Your task to perform on an android device: clear history in the chrome app Image 0: 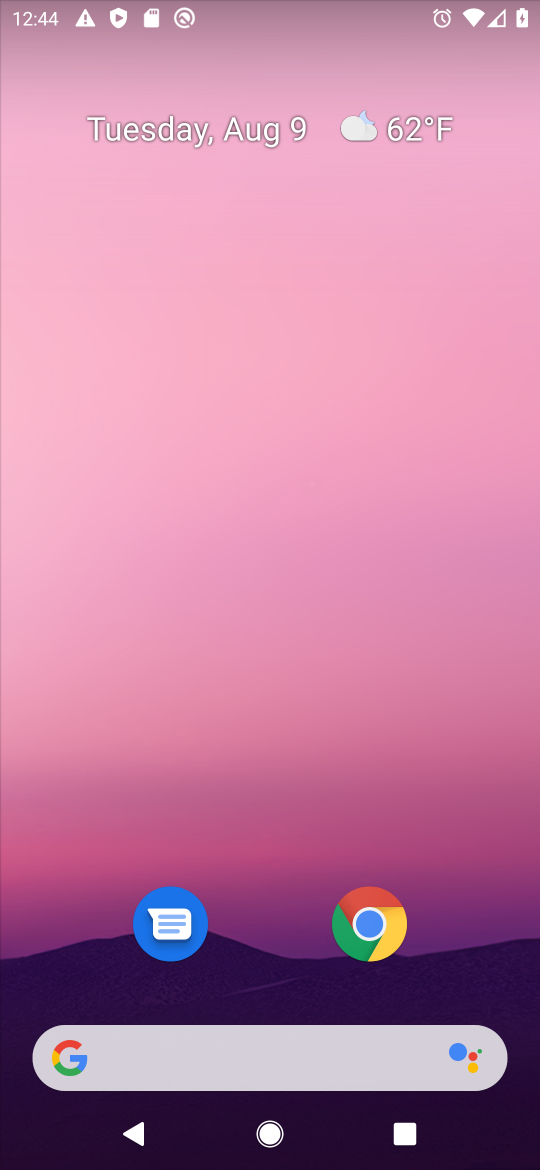
Step 0: click (366, 927)
Your task to perform on an android device: clear history in the chrome app Image 1: 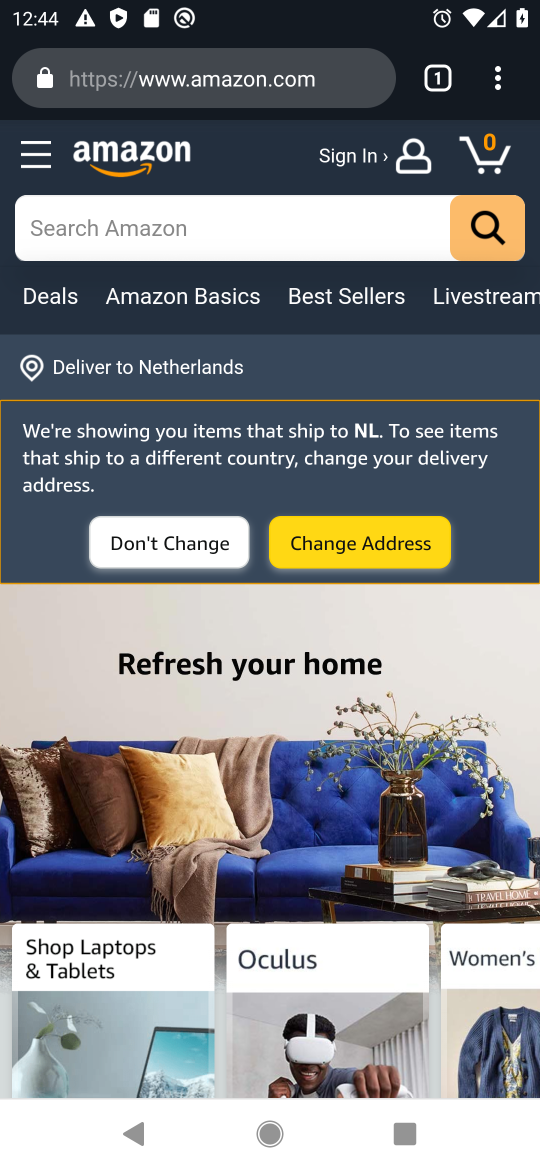
Step 1: click (498, 70)
Your task to perform on an android device: clear history in the chrome app Image 2: 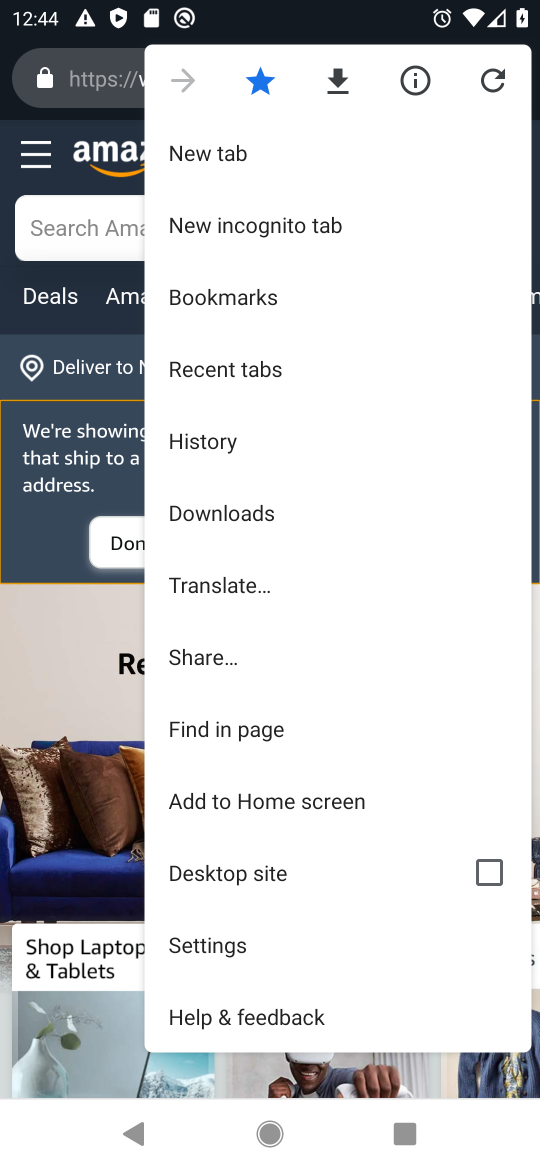
Step 2: click (218, 451)
Your task to perform on an android device: clear history in the chrome app Image 3: 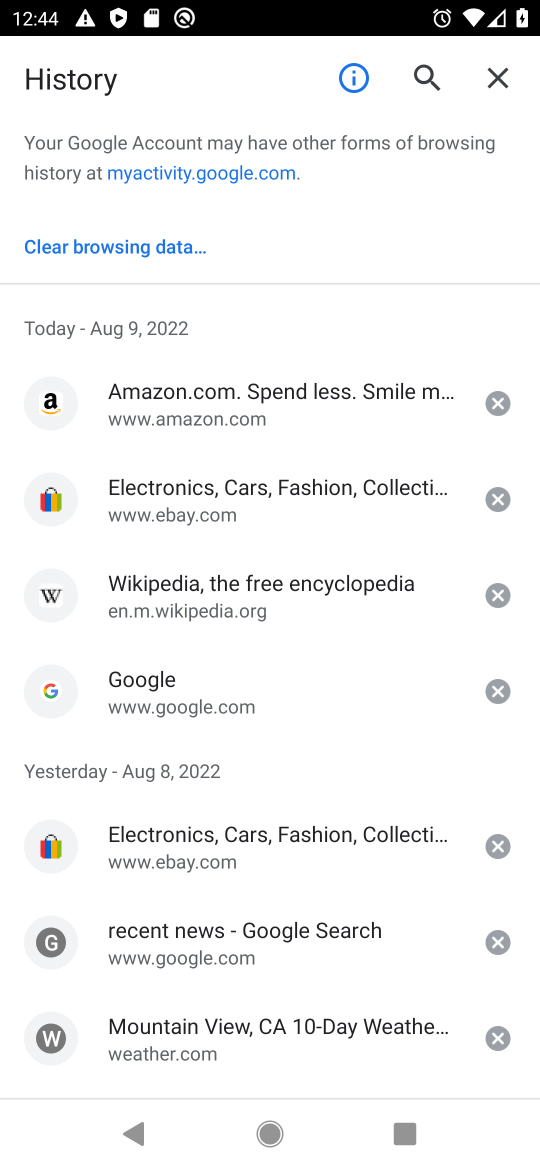
Step 3: click (112, 261)
Your task to perform on an android device: clear history in the chrome app Image 4: 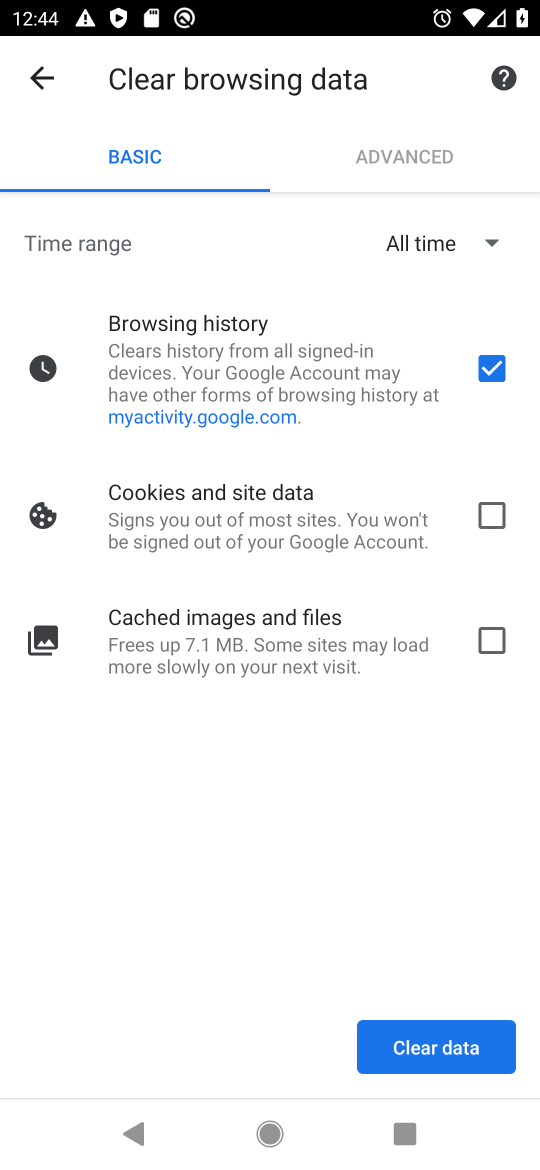
Step 4: click (438, 1052)
Your task to perform on an android device: clear history in the chrome app Image 5: 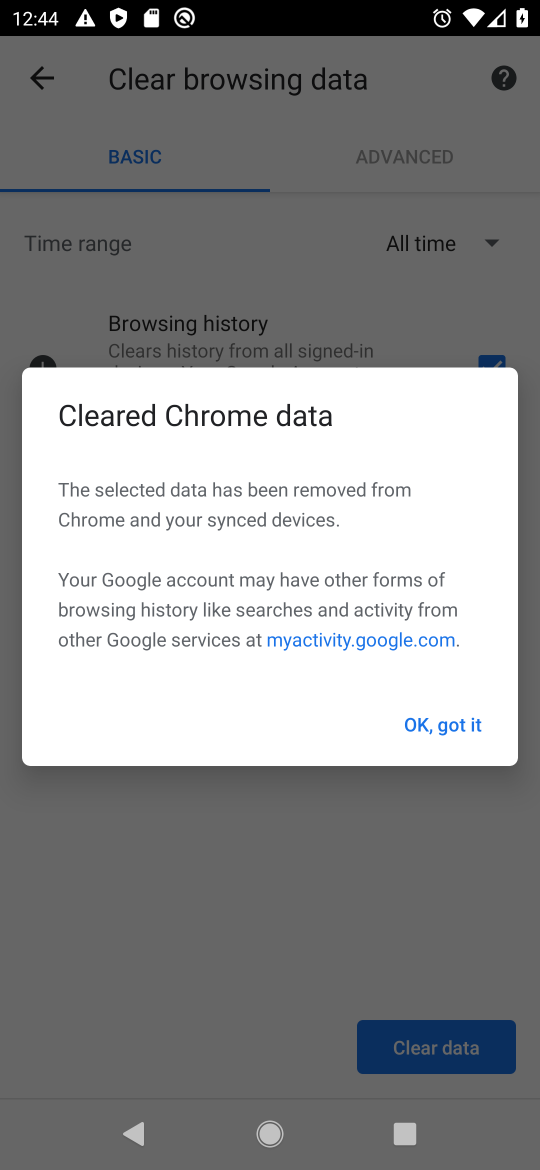
Step 5: click (425, 723)
Your task to perform on an android device: clear history in the chrome app Image 6: 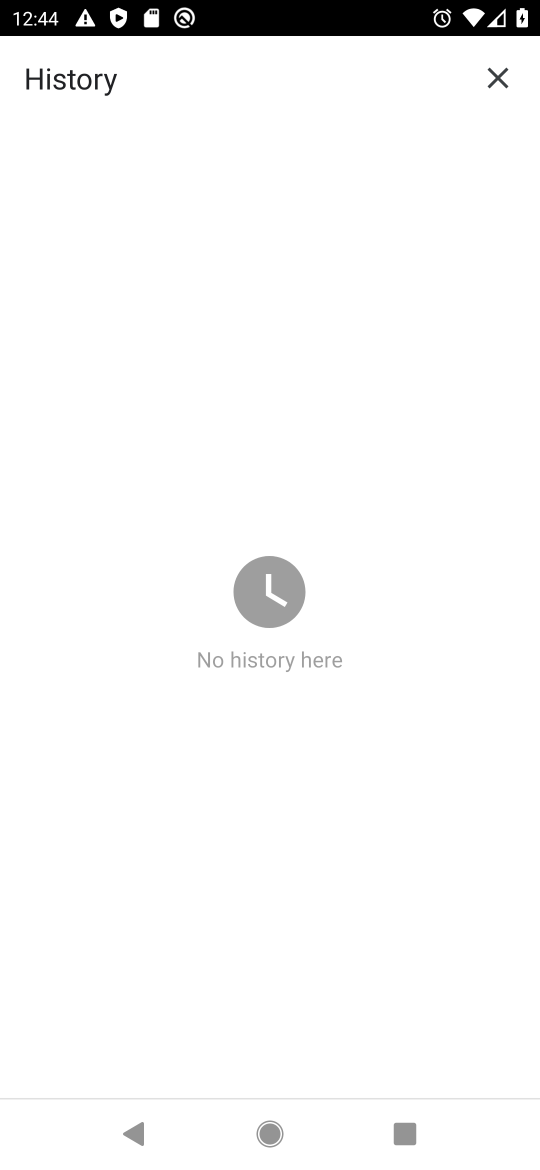
Step 6: task complete